Your task to perform on an android device: View the shopping cart on ebay.com. Image 0: 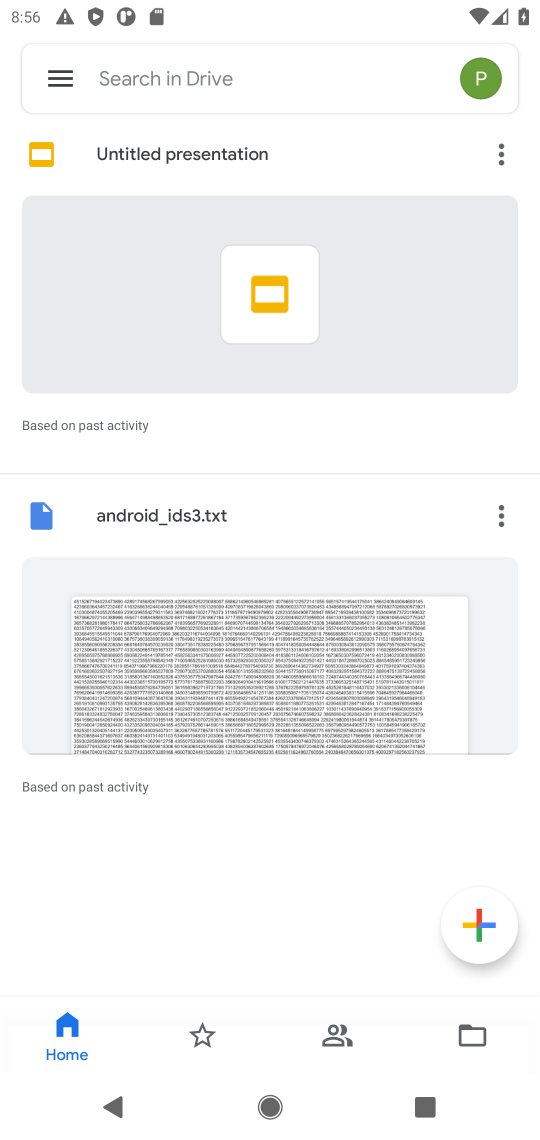
Step 0: press home button
Your task to perform on an android device: View the shopping cart on ebay.com. Image 1: 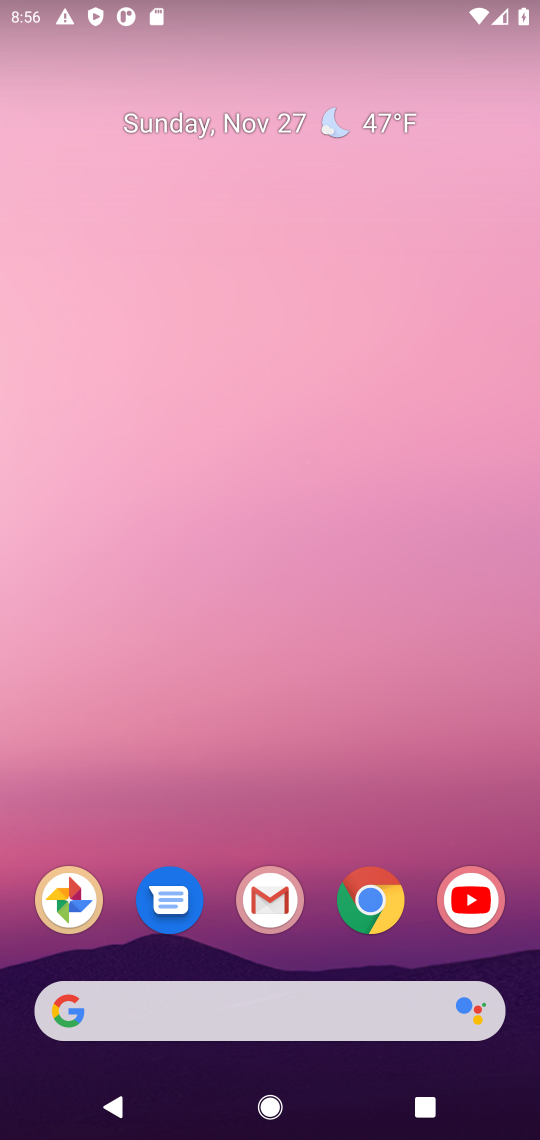
Step 1: click (370, 904)
Your task to perform on an android device: View the shopping cart on ebay.com. Image 2: 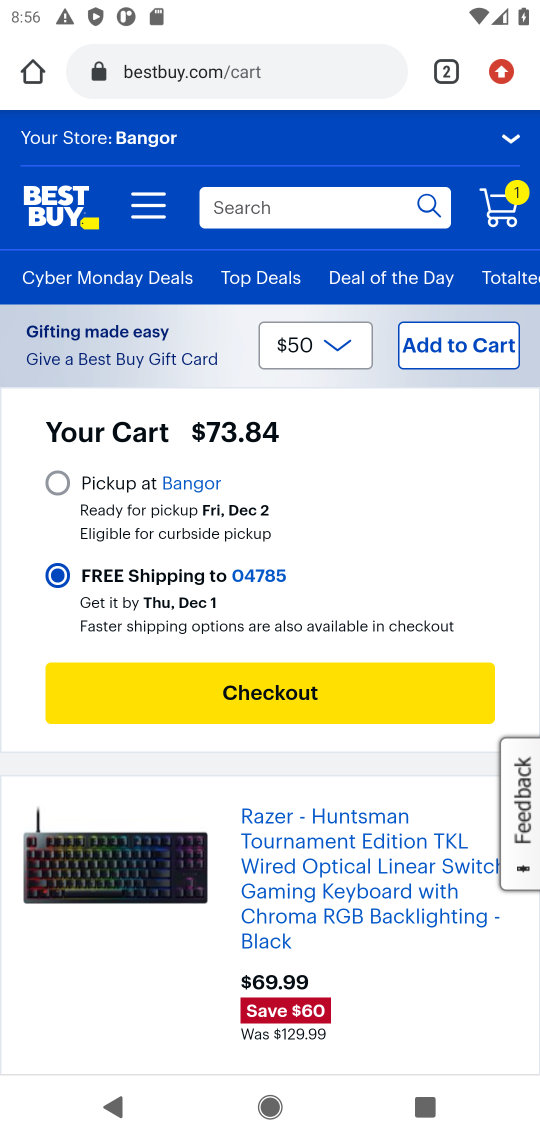
Step 2: click (200, 76)
Your task to perform on an android device: View the shopping cart on ebay.com. Image 3: 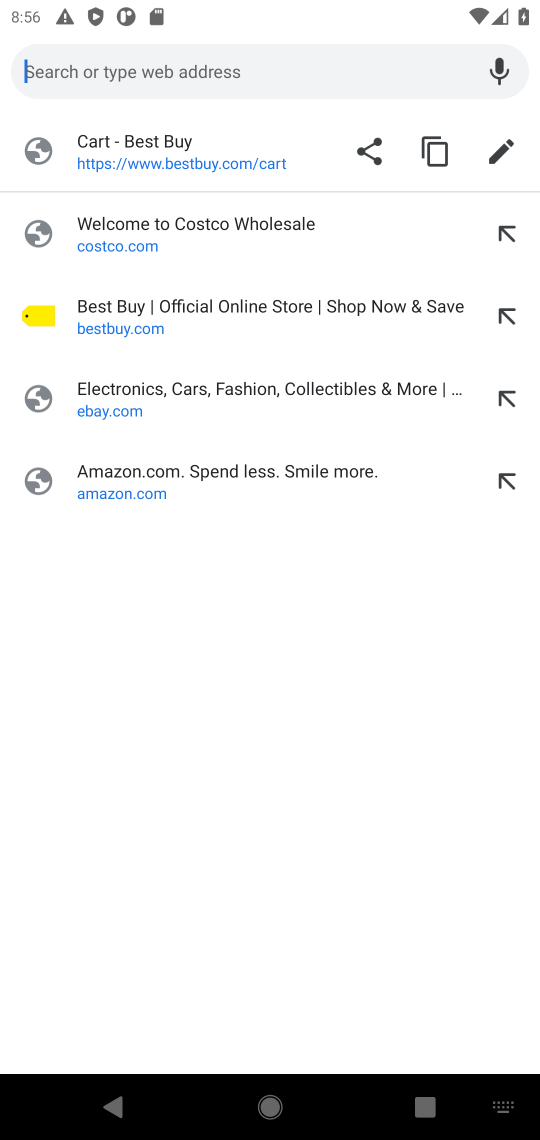
Step 3: click (110, 404)
Your task to perform on an android device: View the shopping cart on ebay.com. Image 4: 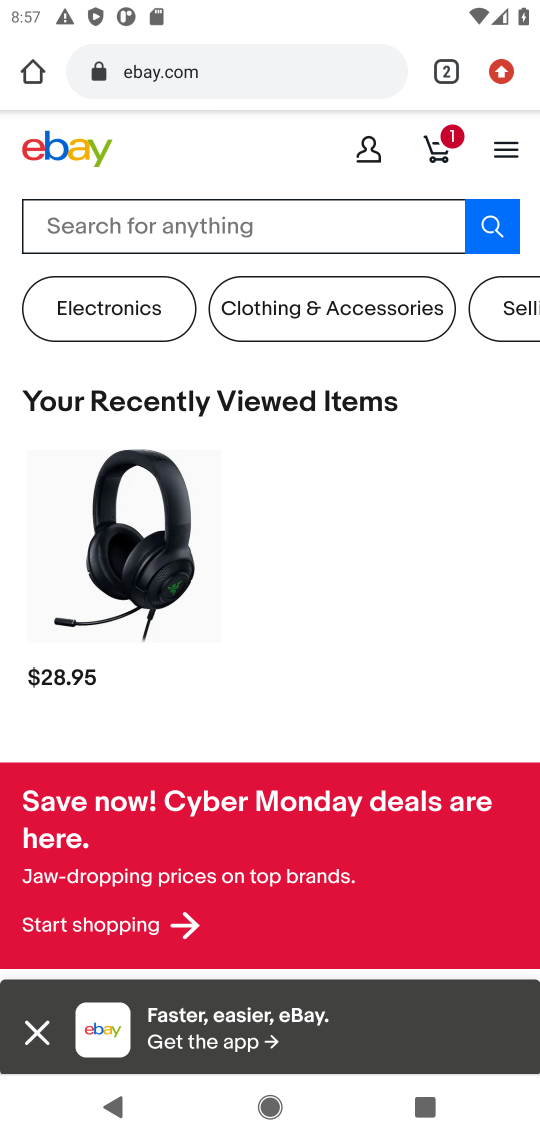
Step 4: click (425, 141)
Your task to perform on an android device: View the shopping cart on ebay.com. Image 5: 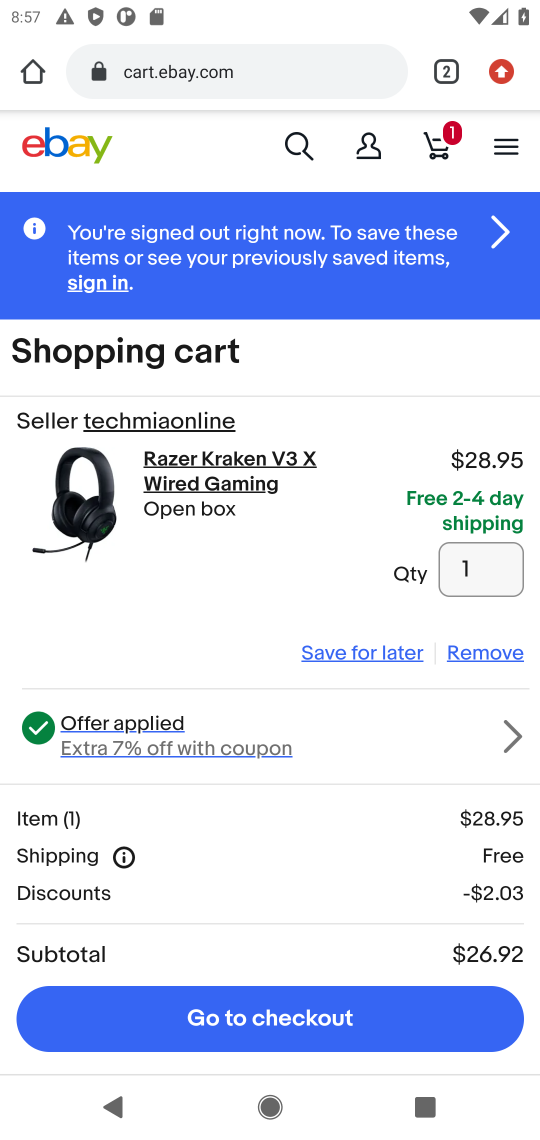
Step 5: task complete